Your task to perform on an android device: Clear the cart on walmart. Add "corsair k70" to the cart on walmart, then select checkout. Image 0: 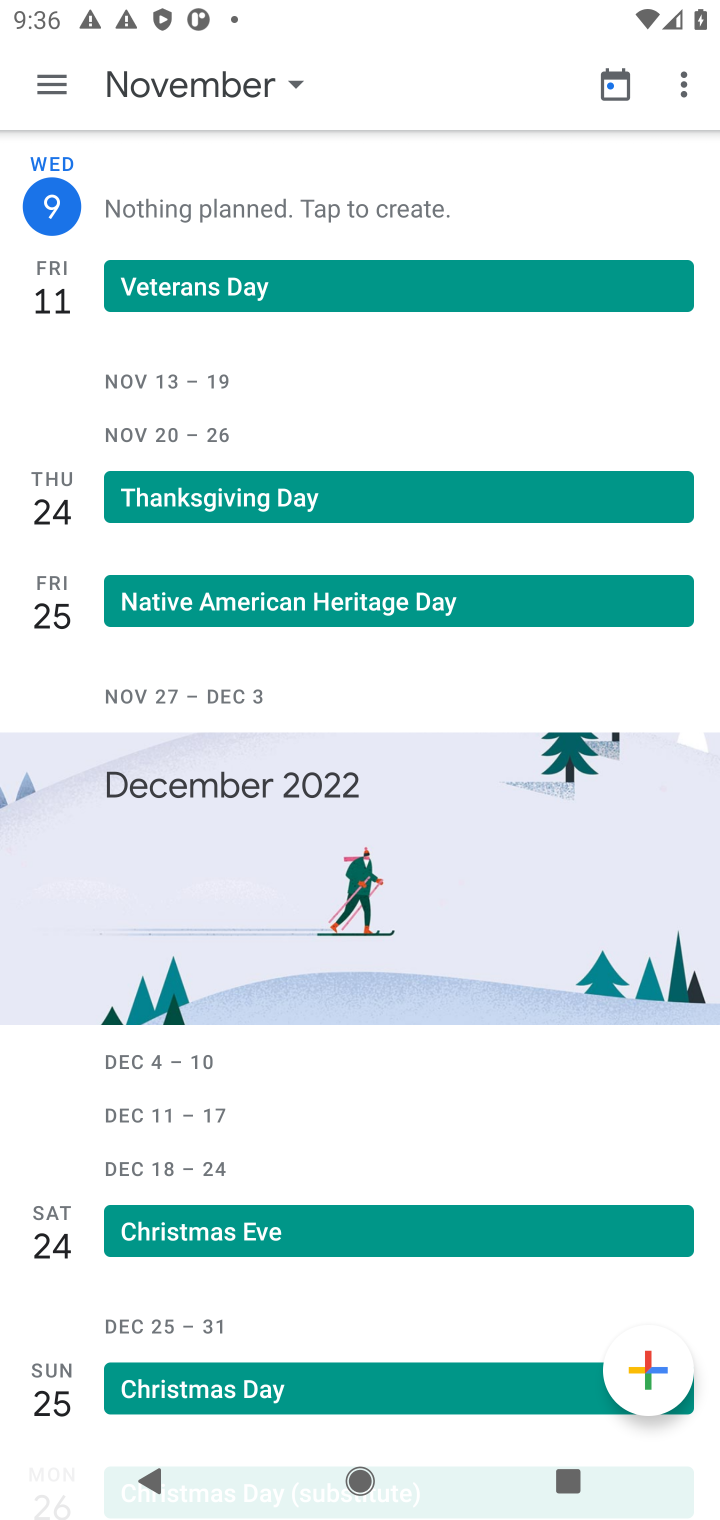
Step 0: press home button
Your task to perform on an android device: Clear the cart on walmart. Add "corsair k70" to the cart on walmart, then select checkout. Image 1: 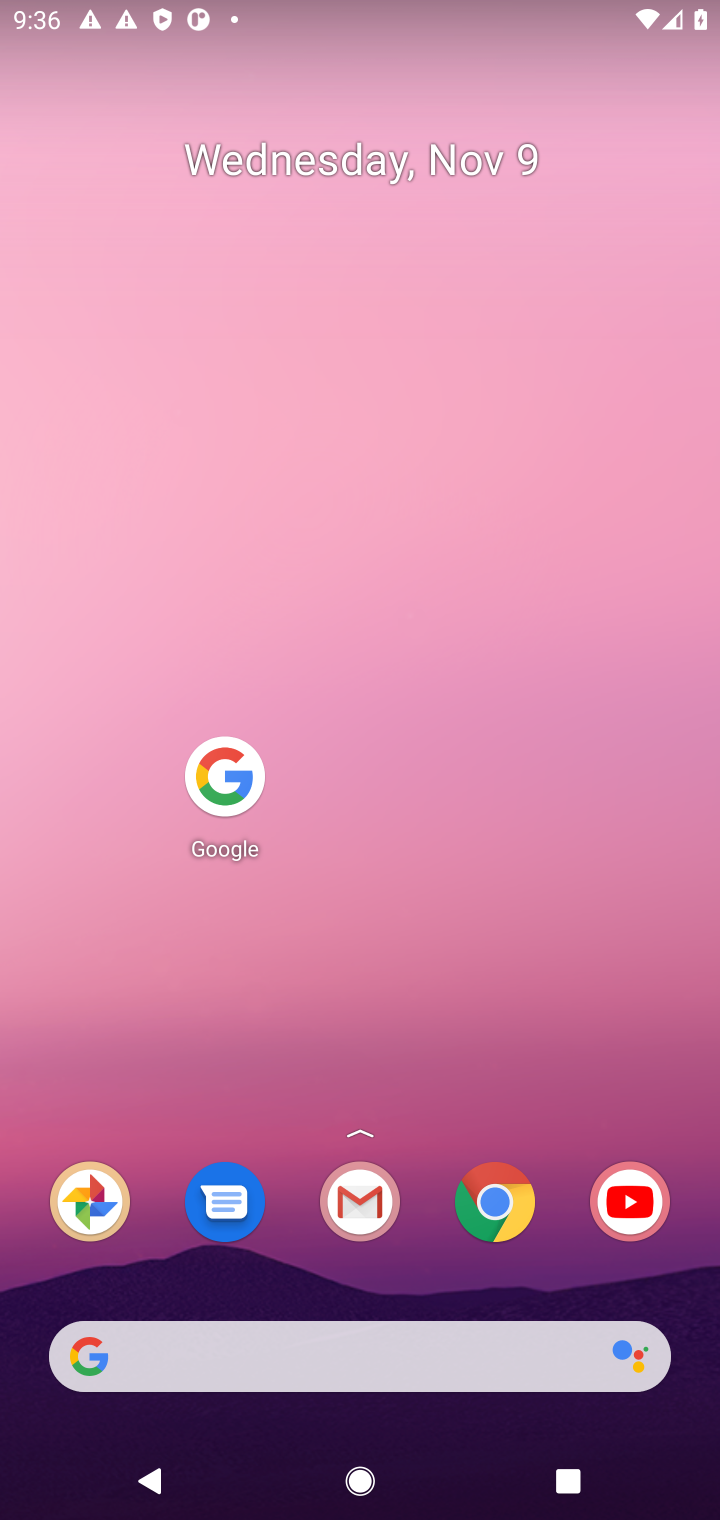
Step 1: click (216, 781)
Your task to perform on an android device: Clear the cart on walmart. Add "corsair k70" to the cart on walmart, then select checkout. Image 2: 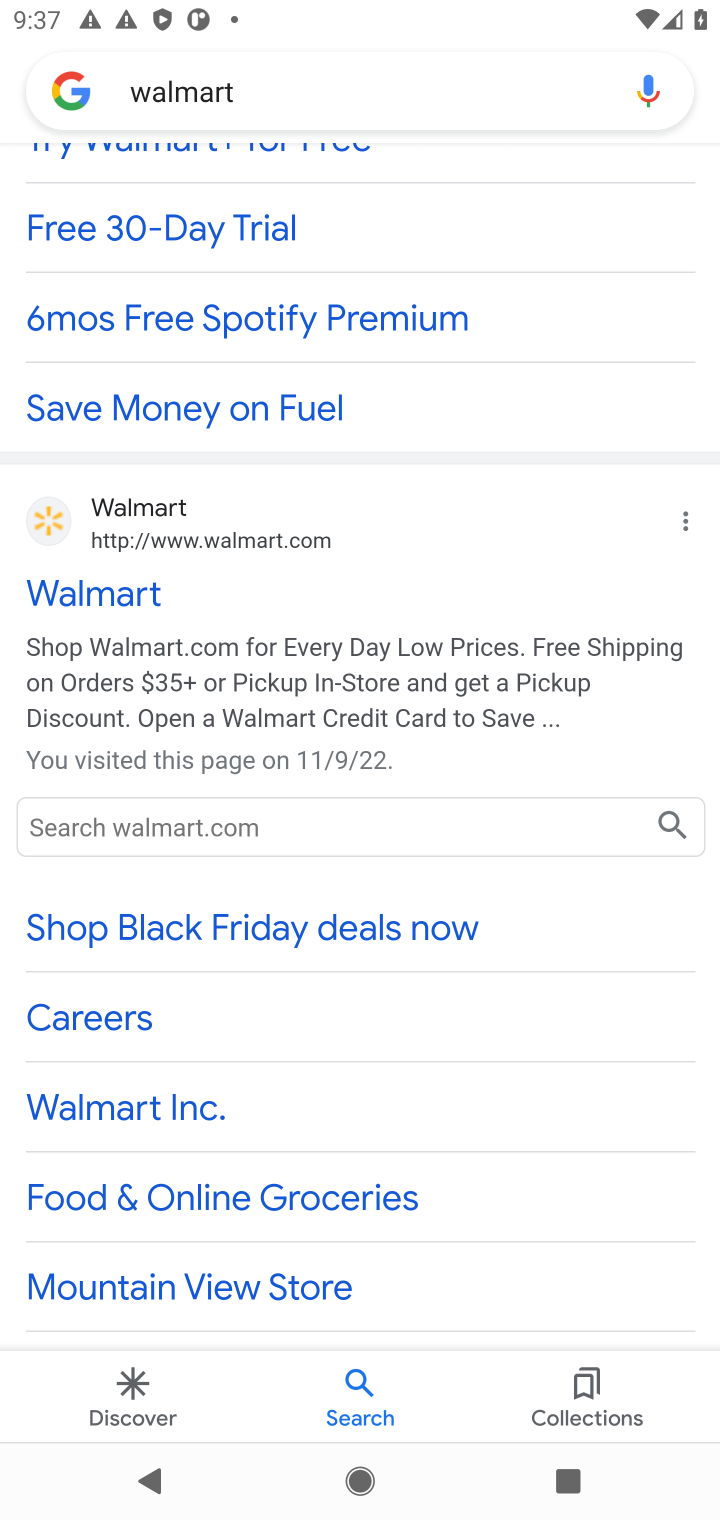
Step 2: click (127, 580)
Your task to perform on an android device: Clear the cart on walmart. Add "corsair k70" to the cart on walmart, then select checkout. Image 3: 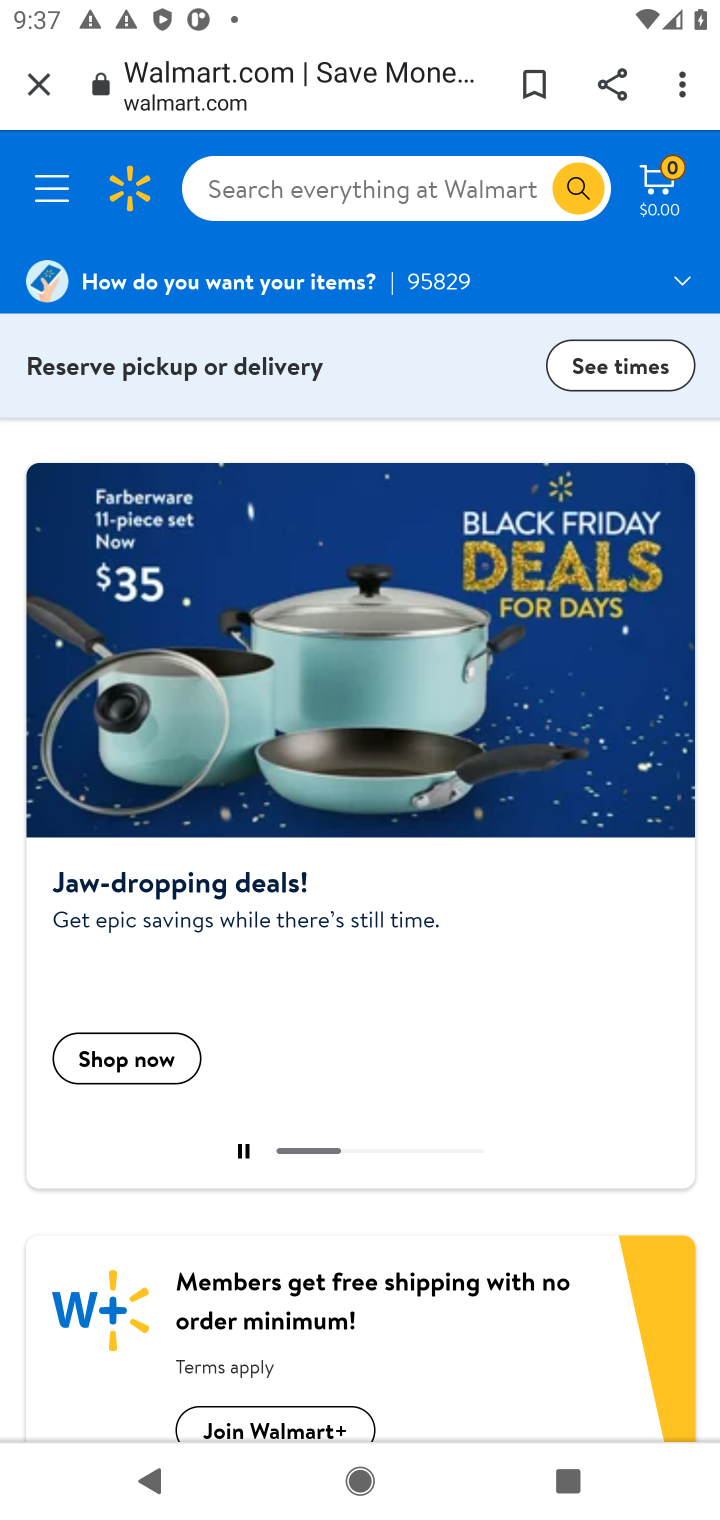
Step 3: click (372, 178)
Your task to perform on an android device: Clear the cart on walmart. Add "corsair k70" to the cart on walmart, then select checkout. Image 4: 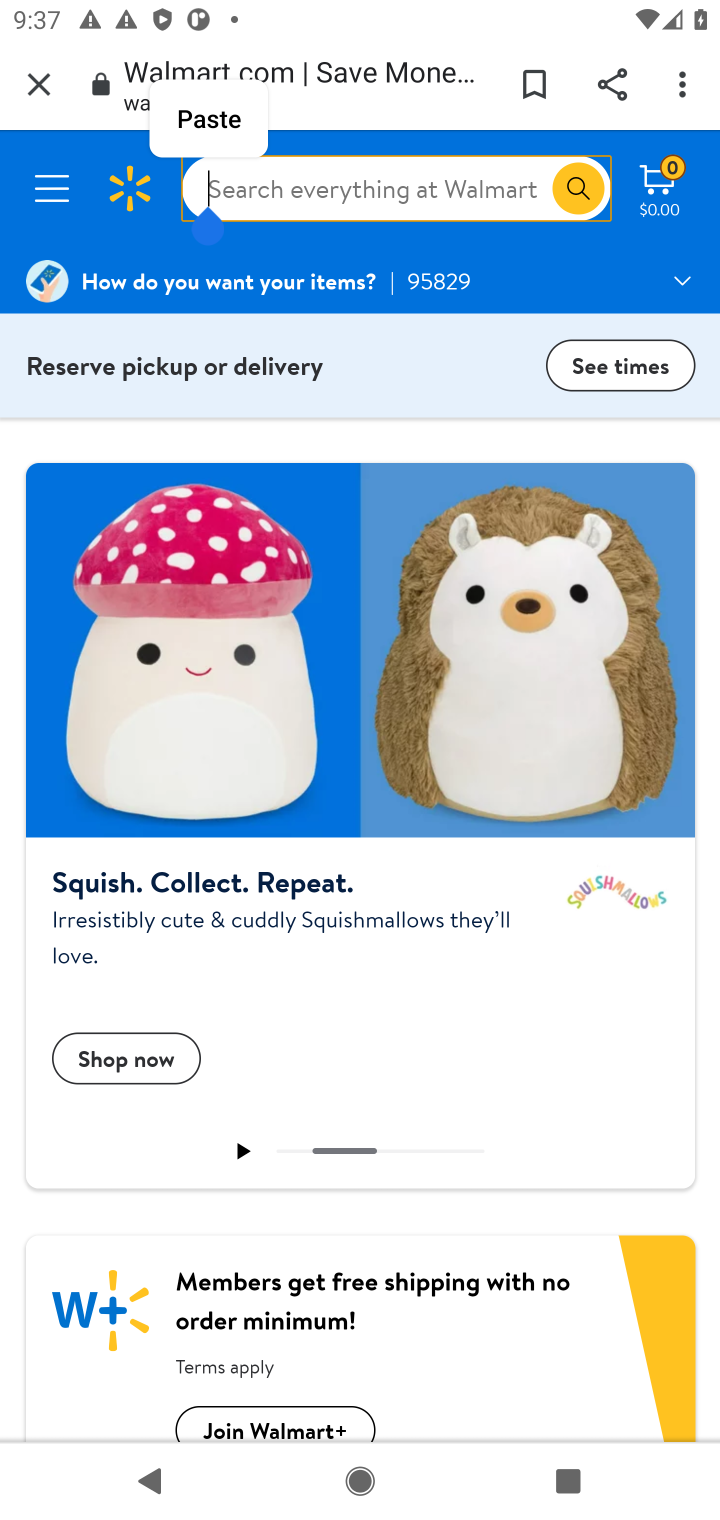
Step 4: press enter
Your task to perform on an android device: Clear the cart on walmart. Add "corsair k70" to the cart on walmart, then select checkout. Image 5: 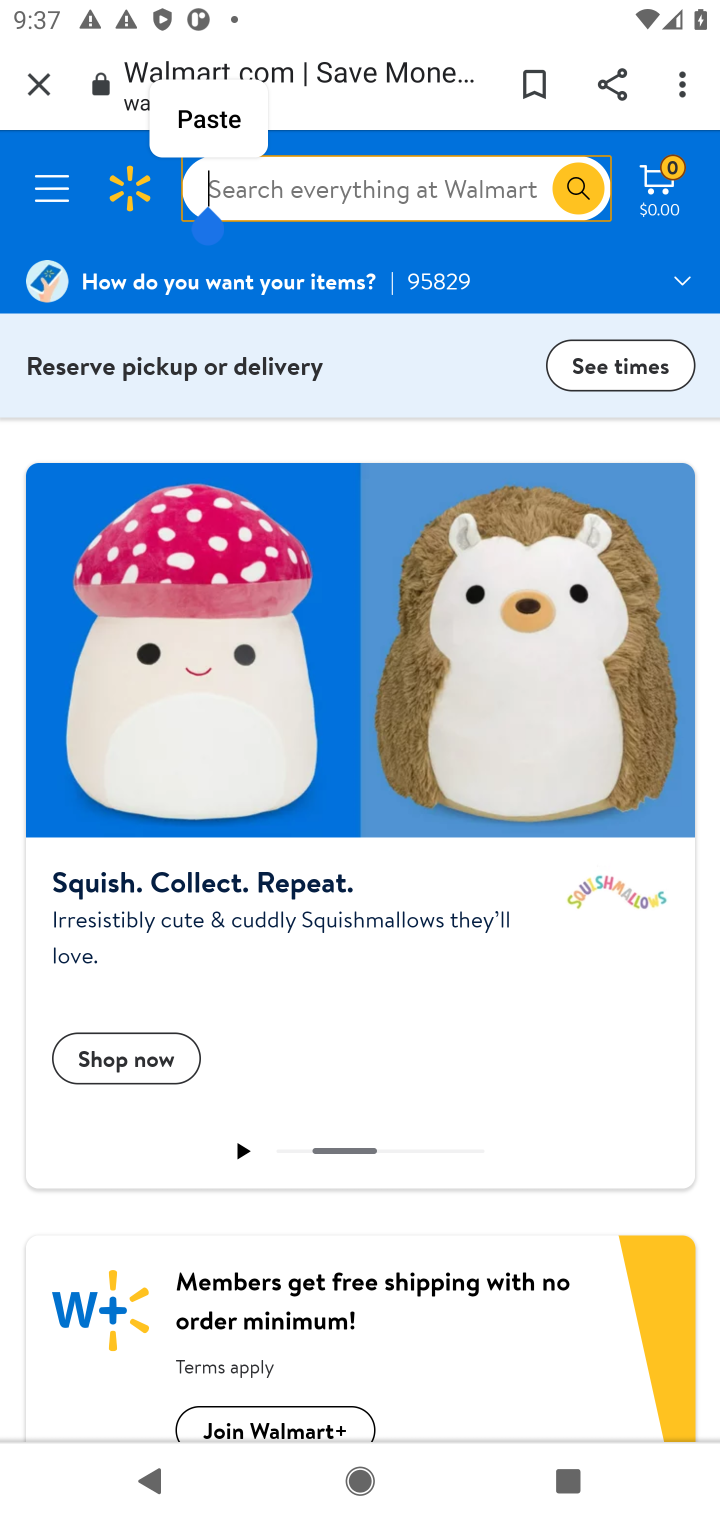
Step 5: type "corsair k70"
Your task to perform on an android device: Clear the cart on walmart. Add "corsair k70" to the cart on walmart, then select checkout. Image 6: 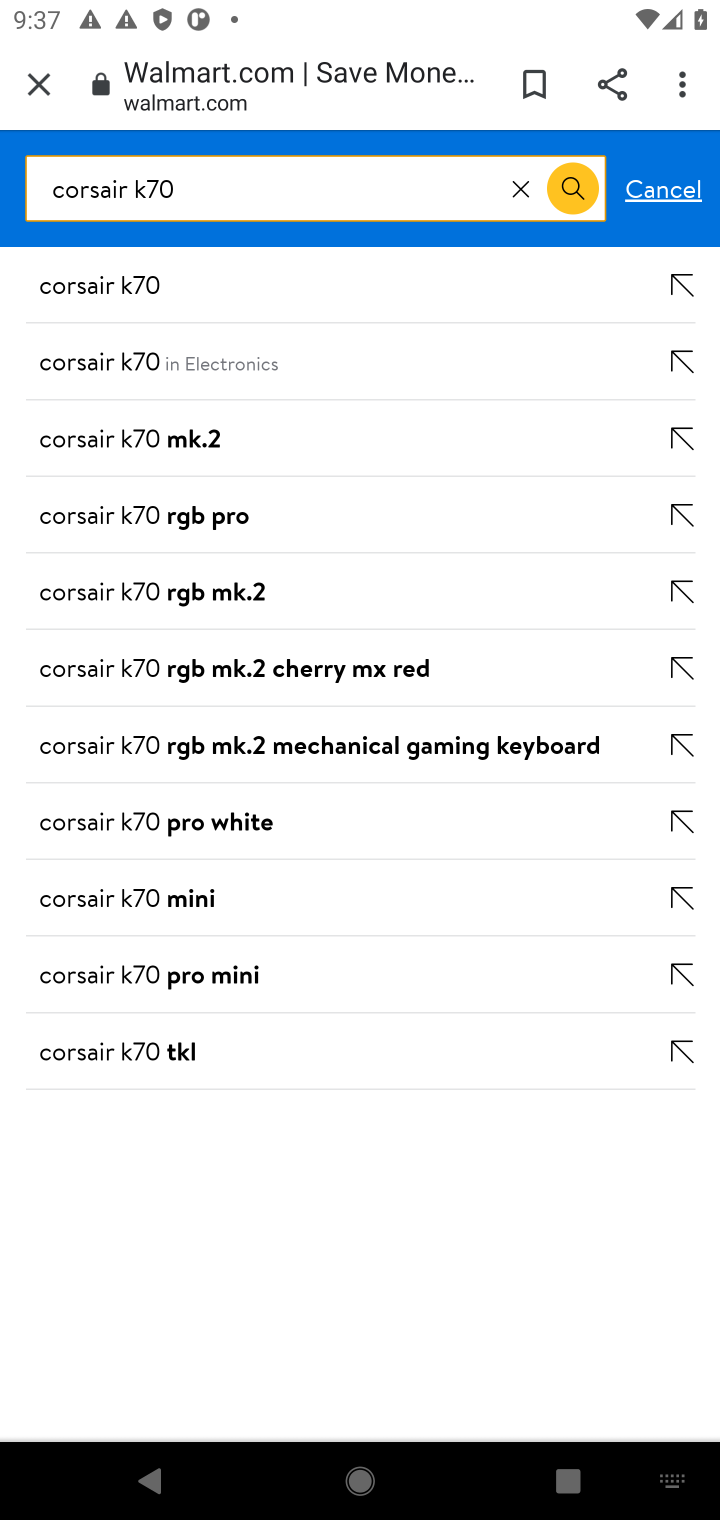
Step 6: press enter
Your task to perform on an android device: Clear the cart on walmart. Add "corsair k70" to the cart on walmart, then select checkout. Image 7: 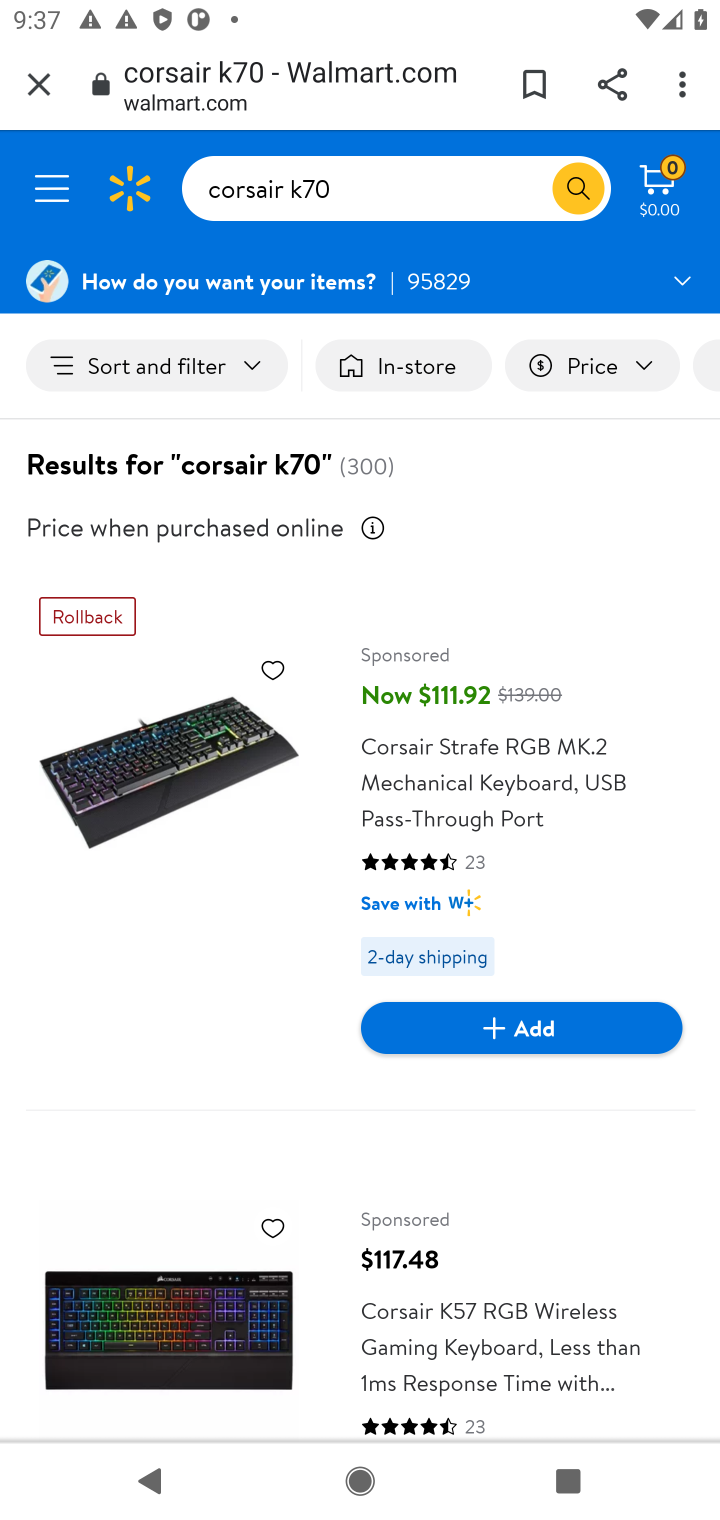
Step 7: drag from (337, 1201) to (656, 400)
Your task to perform on an android device: Clear the cart on walmart. Add "corsair k70" to the cart on walmart, then select checkout. Image 8: 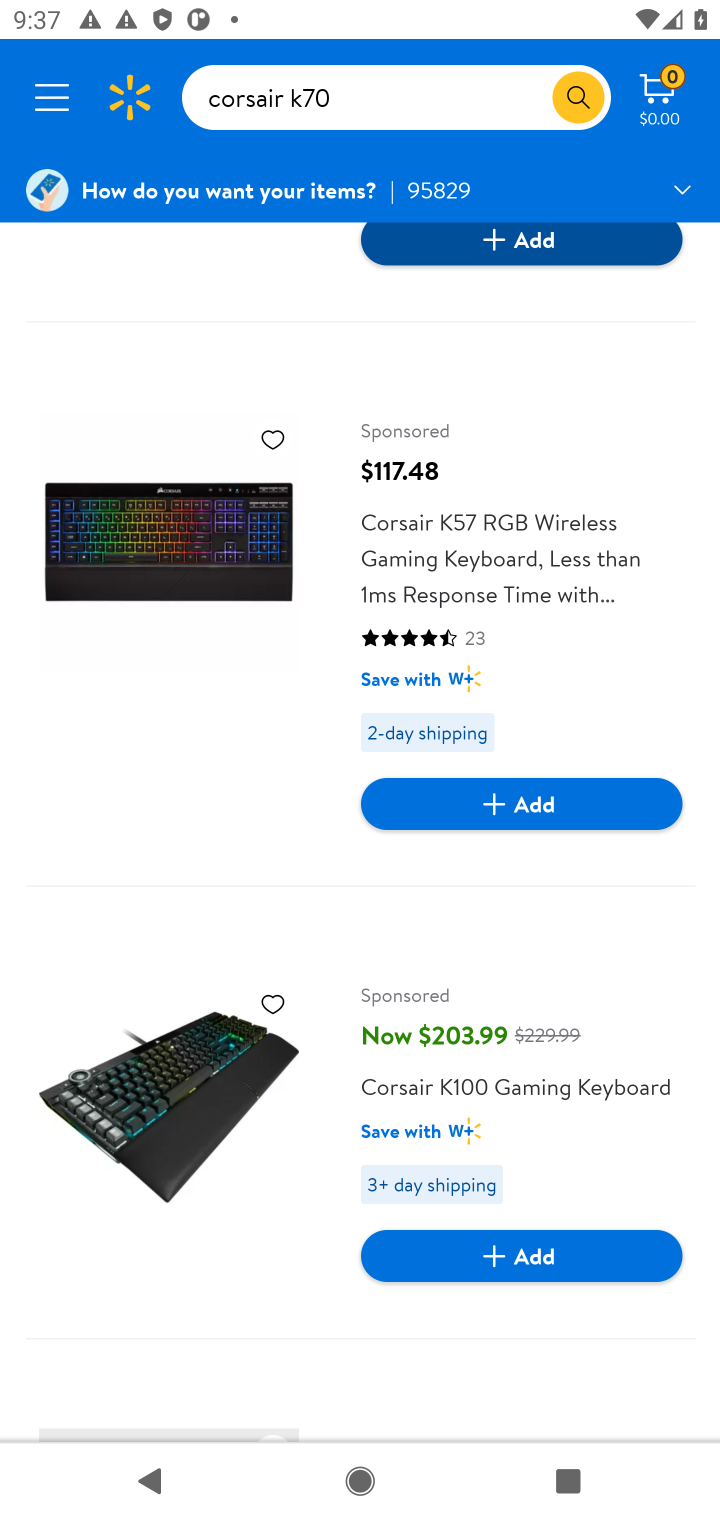
Step 8: drag from (260, 1308) to (508, 374)
Your task to perform on an android device: Clear the cart on walmart. Add "corsair k70" to the cart on walmart, then select checkout. Image 9: 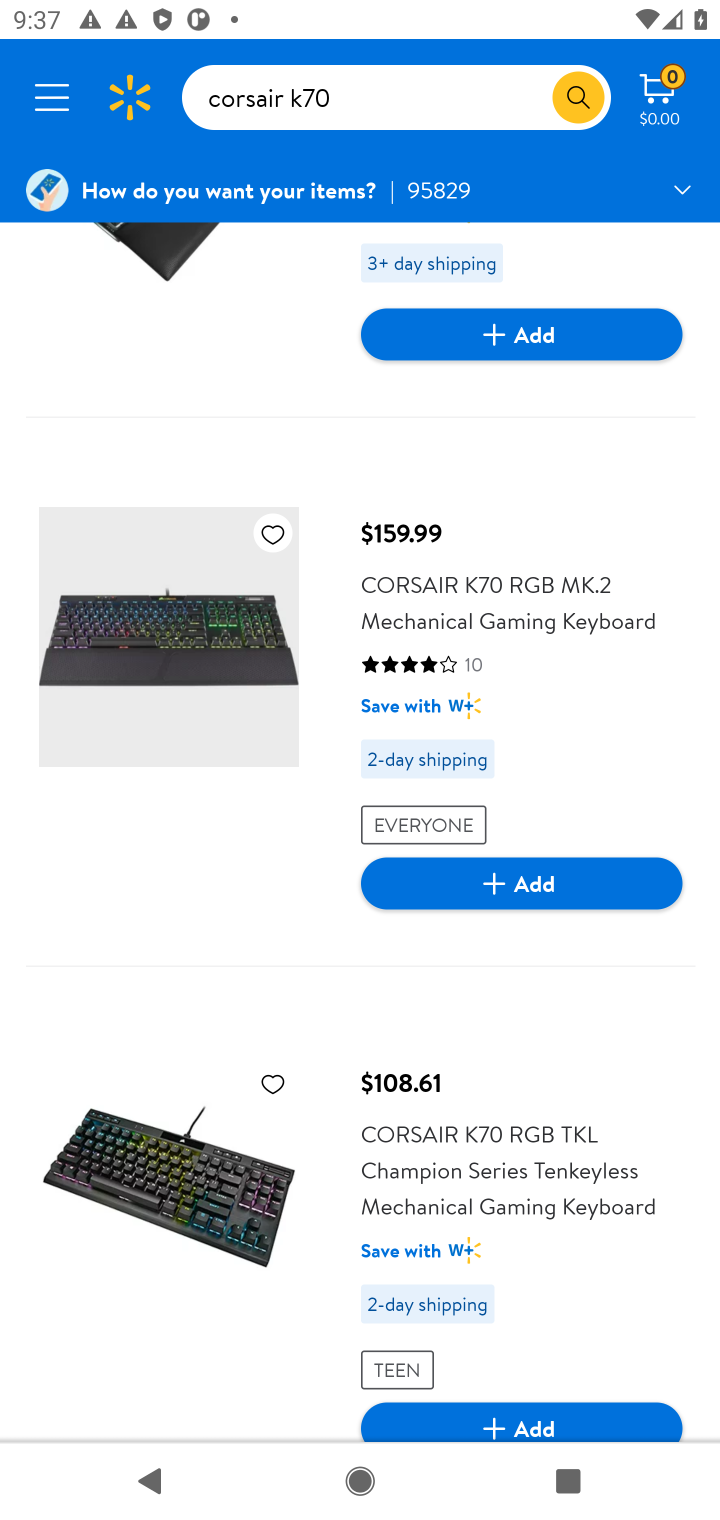
Step 9: click (552, 882)
Your task to perform on an android device: Clear the cart on walmart. Add "corsair k70" to the cart on walmart, then select checkout. Image 10: 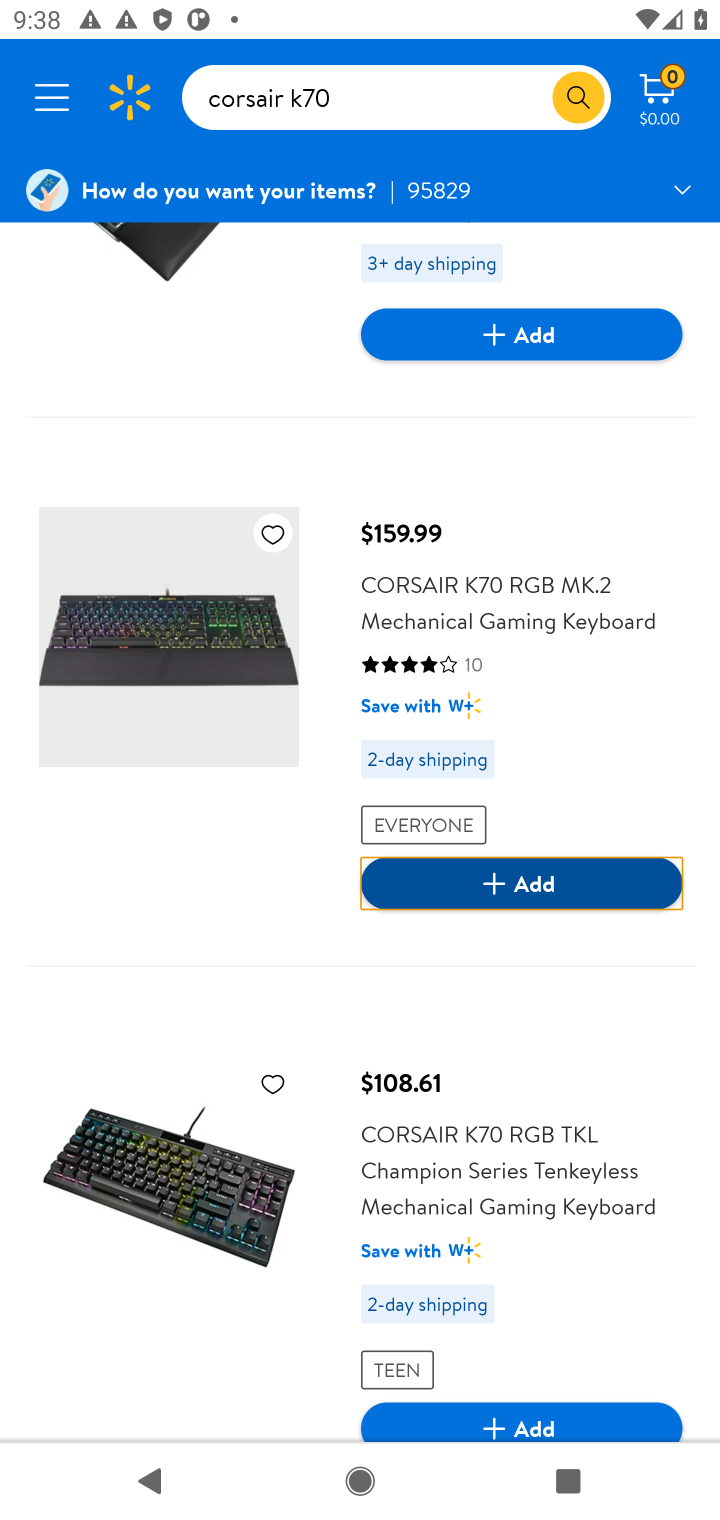
Step 10: click (528, 886)
Your task to perform on an android device: Clear the cart on walmart. Add "corsair k70" to the cart on walmart, then select checkout. Image 11: 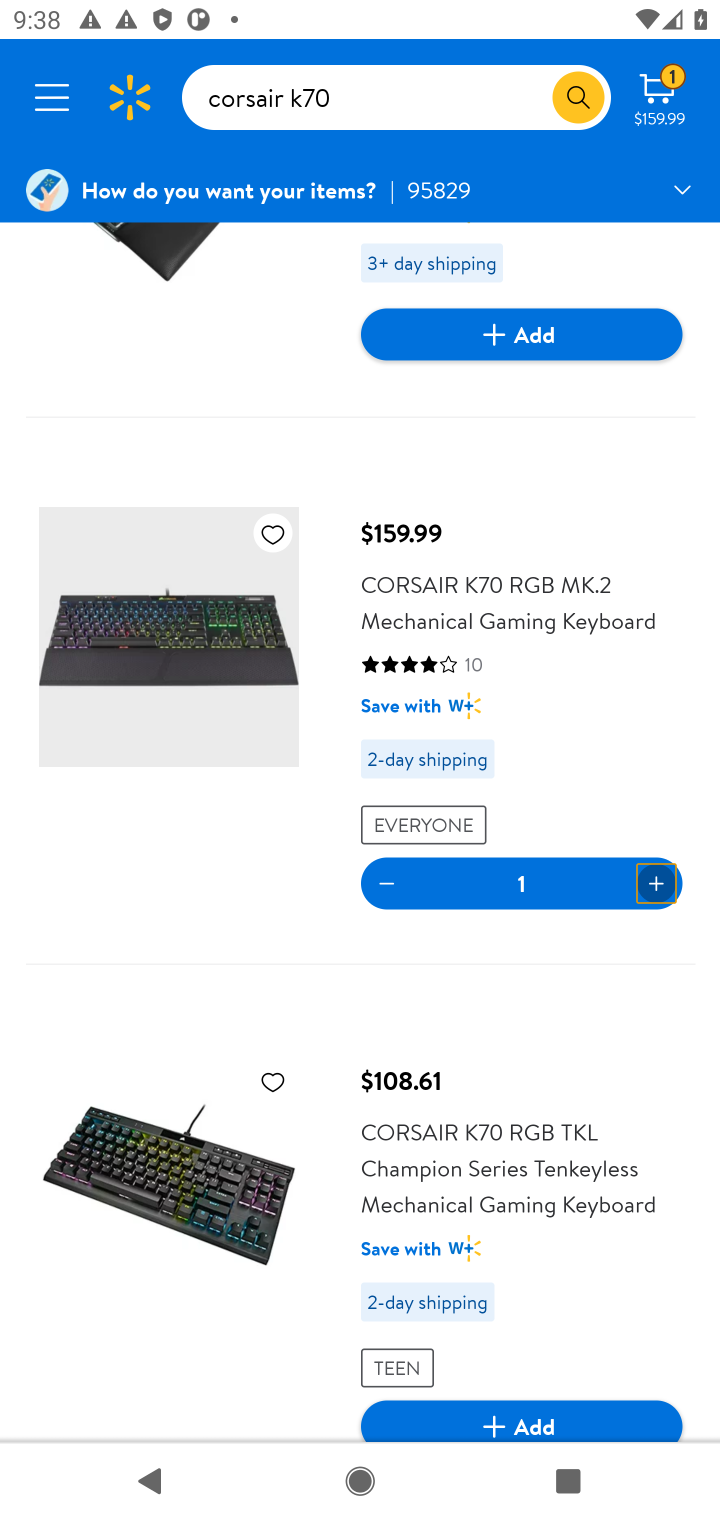
Step 11: click (660, 87)
Your task to perform on an android device: Clear the cart on walmart. Add "corsair k70" to the cart on walmart, then select checkout. Image 12: 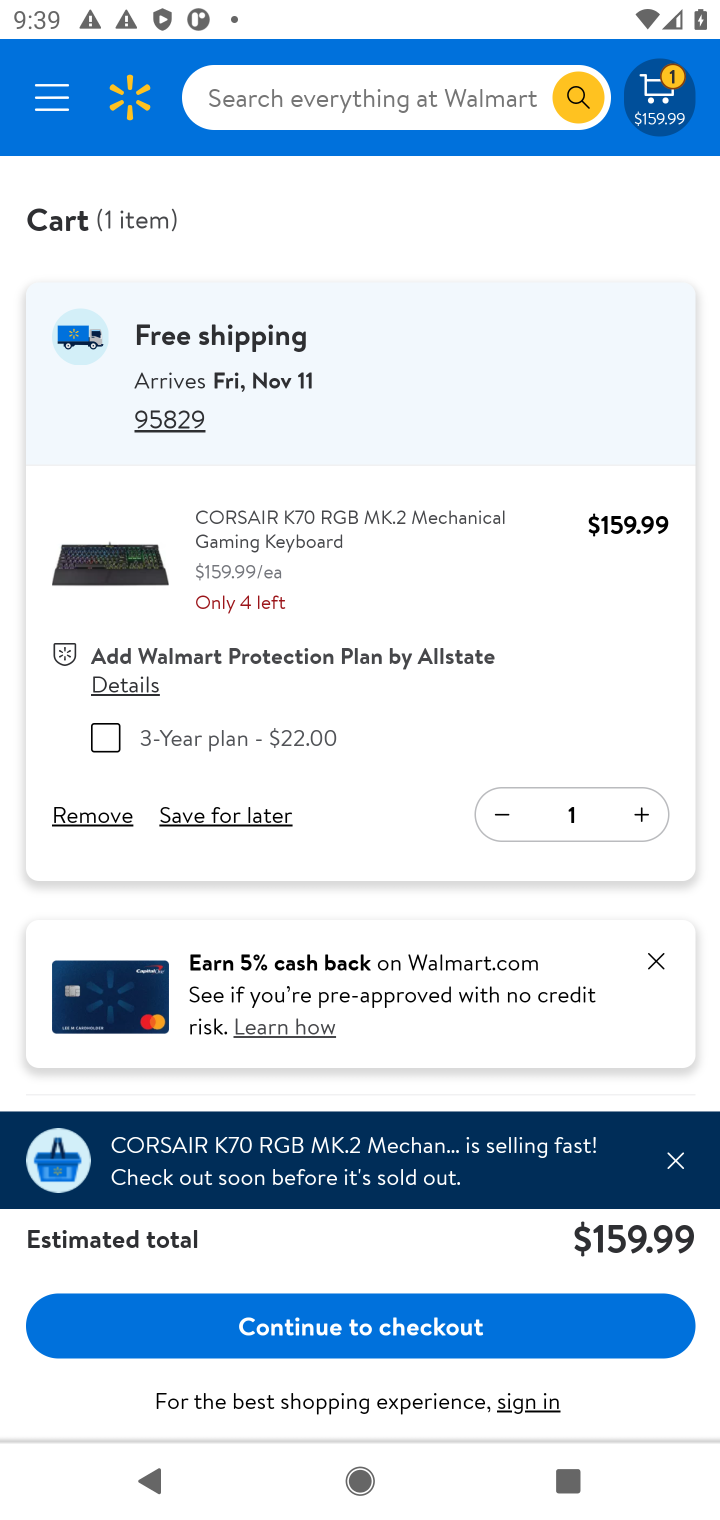
Step 12: click (412, 1332)
Your task to perform on an android device: Clear the cart on walmart. Add "corsair k70" to the cart on walmart, then select checkout. Image 13: 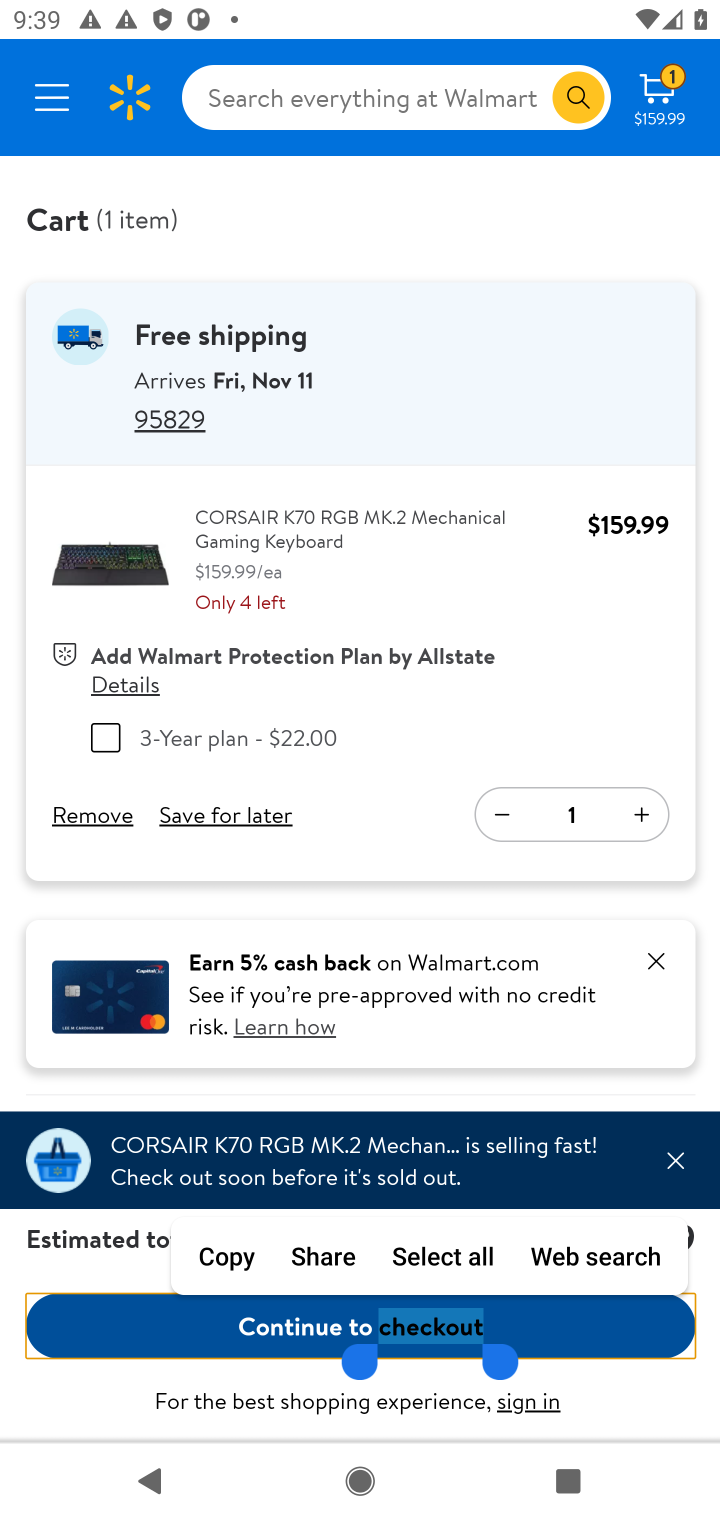
Step 13: click (344, 1329)
Your task to perform on an android device: Clear the cart on walmart. Add "corsair k70" to the cart on walmart, then select checkout. Image 14: 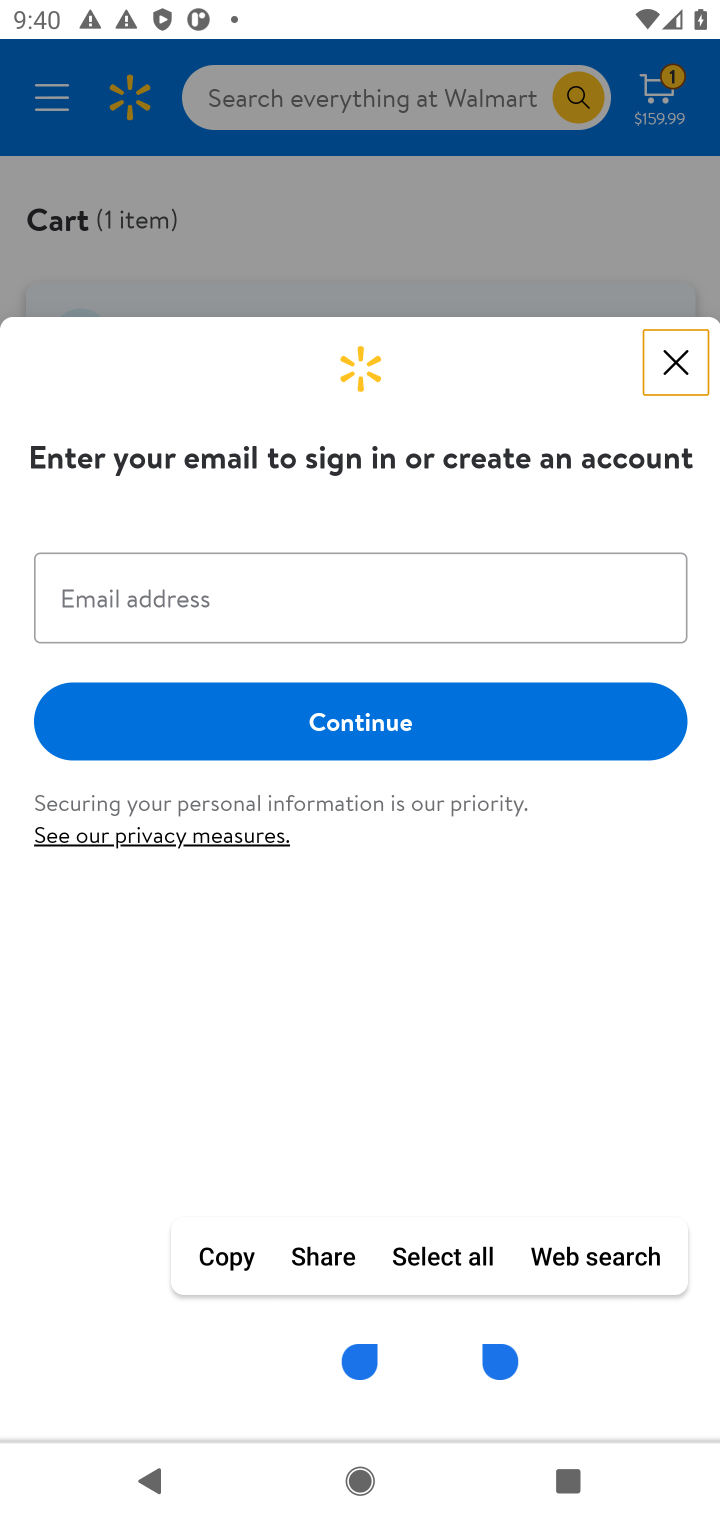
Step 14: task complete